Your task to perform on an android device: turn on showing notifications on the lock screen Image 0: 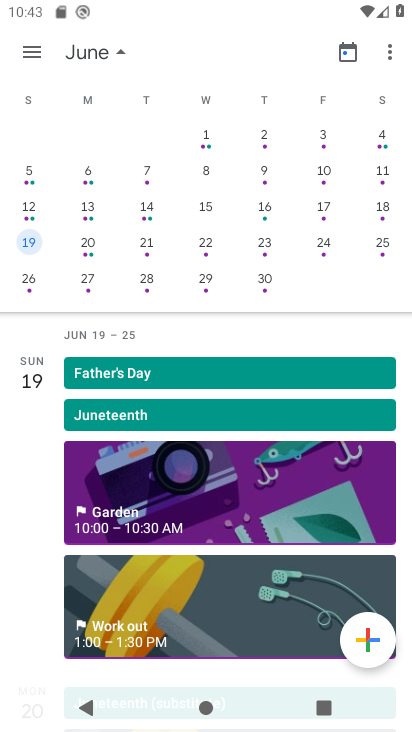
Step 0: press home button
Your task to perform on an android device: turn on showing notifications on the lock screen Image 1: 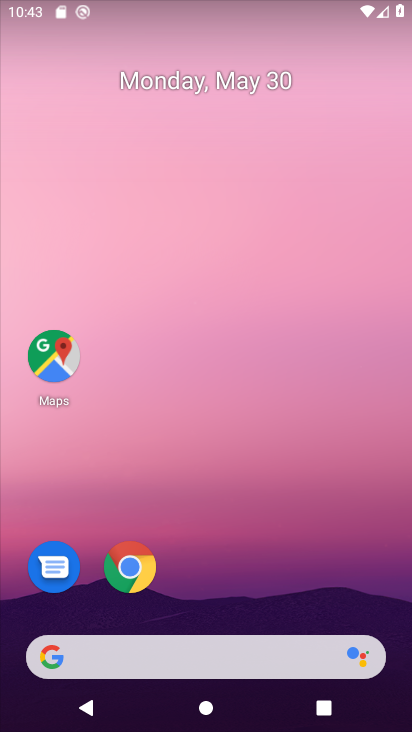
Step 1: drag from (230, 641) to (229, 250)
Your task to perform on an android device: turn on showing notifications on the lock screen Image 2: 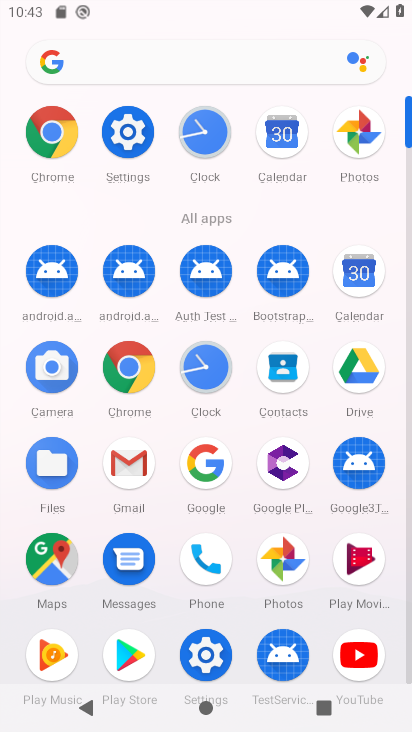
Step 2: click (121, 134)
Your task to perform on an android device: turn on showing notifications on the lock screen Image 3: 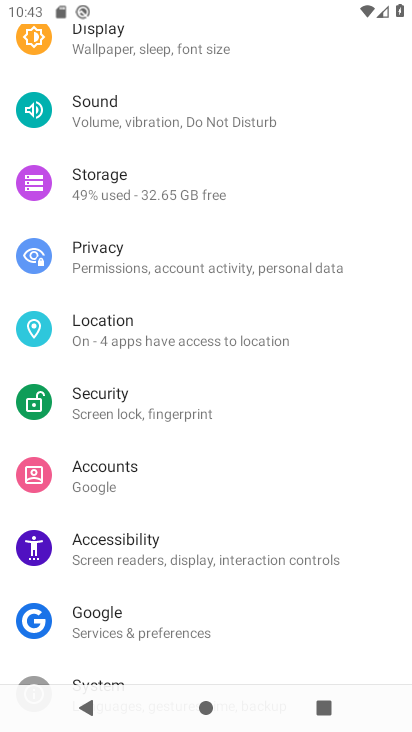
Step 3: drag from (154, 630) to (148, 297)
Your task to perform on an android device: turn on showing notifications on the lock screen Image 4: 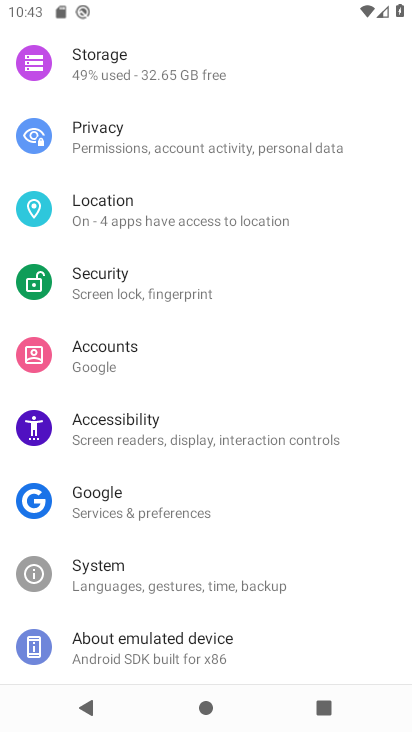
Step 4: click (115, 142)
Your task to perform on an android device: turn on showing notifications on the lock screen Image 5: 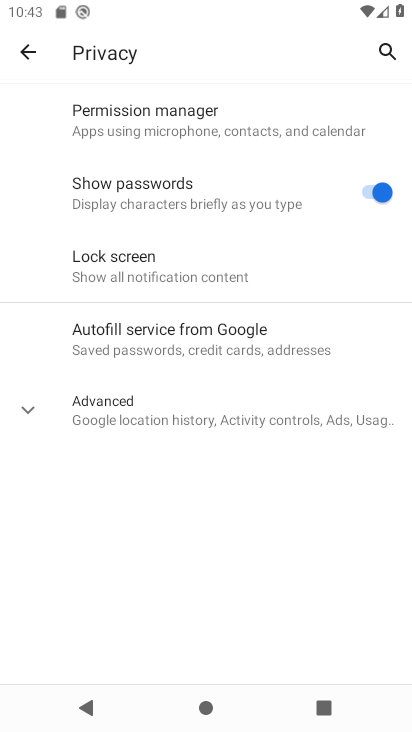
Step 5: click (166, 409)
Your task to perform on an android device: turn on showing notifications on the lock screen Image 6: 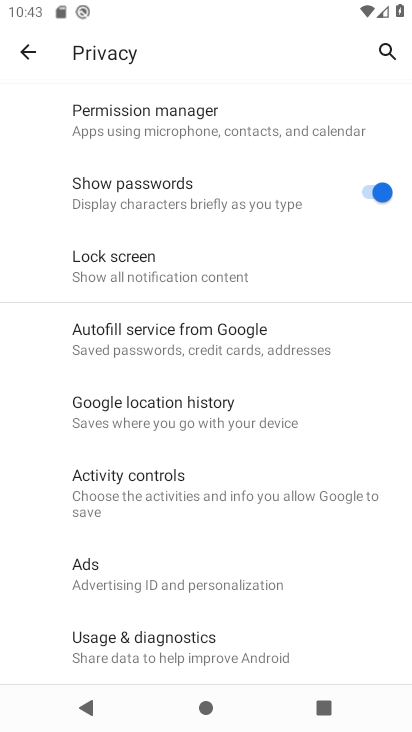
Step 6: click (140, 263)
Your task to perform on an android device: turn on showing notifications on the lock screen Image 7: 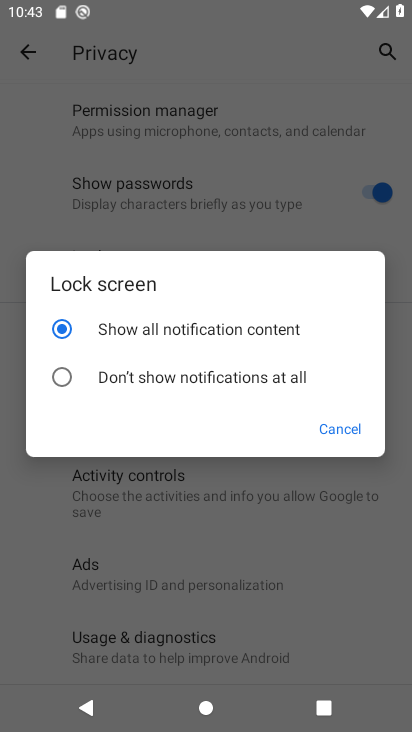
Step 7: click (308, 422)
Your task to perform on an android device: turn on showing notifications on the lock screen Image 8: 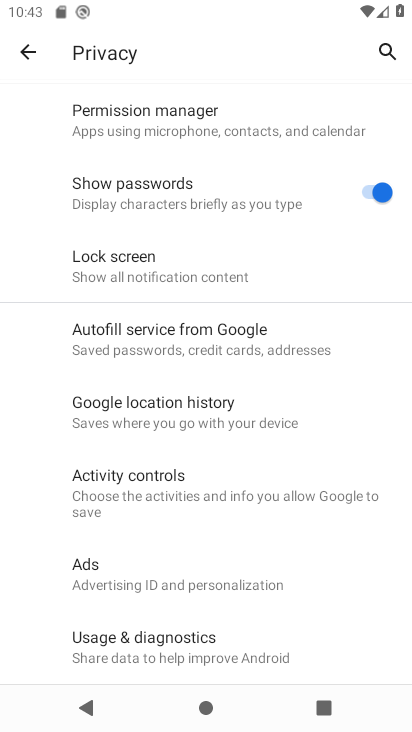
Step 8: task complete